Your task to perform on an android device: Do I have any events this weekend? Image 0: 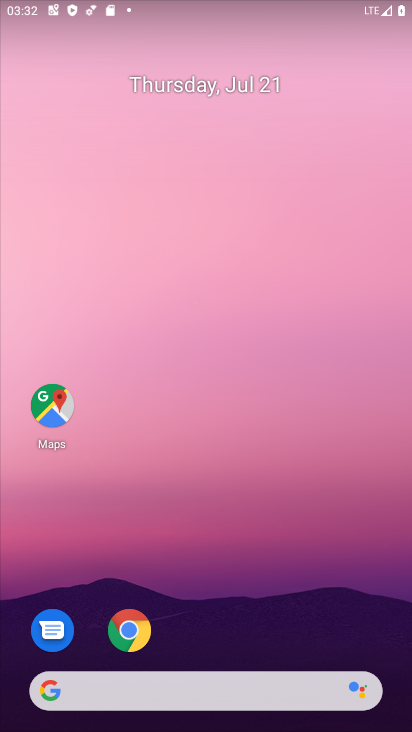
Step 0: click (215, 87)
Your task to perform on an android device: Do I have any events this weekend? Image 1: 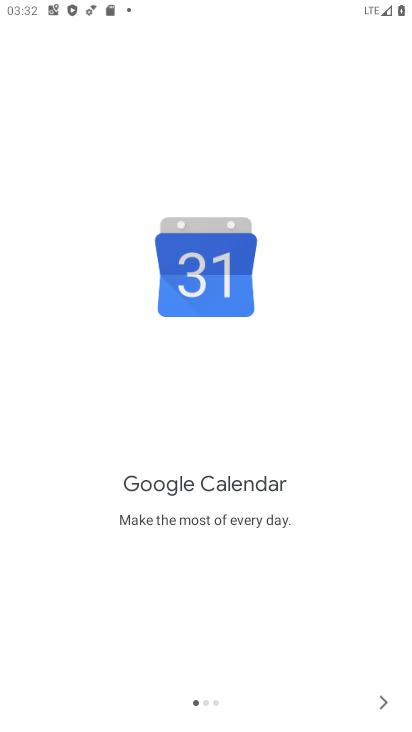
Step 1: click (376, 682)
Your task to perform on an android device: Do I have any events this weekend? Image 2: 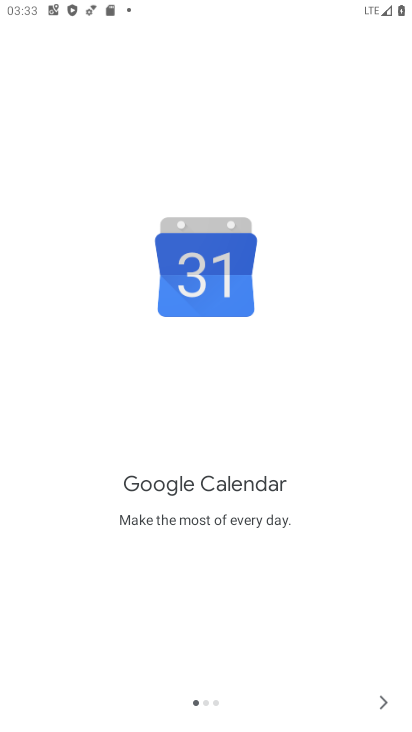
Step 2: click (387, 698)
Your task to perform on an android device: Do I have any events this weekend? Image 3: 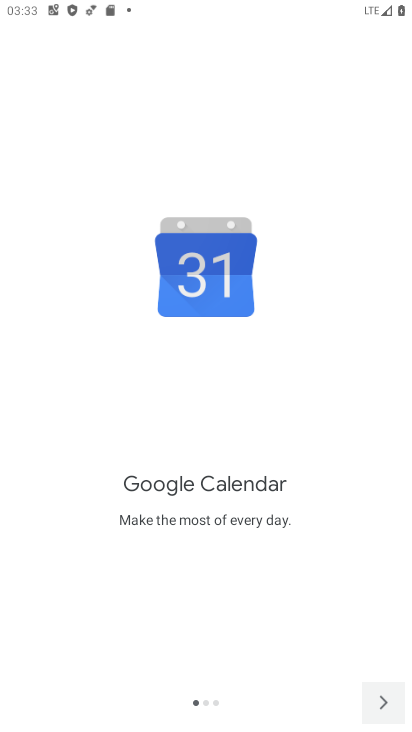
Step 3: click (387, 698)
Your task to perform on an android device: Do I have any events this weekend? Image 4: 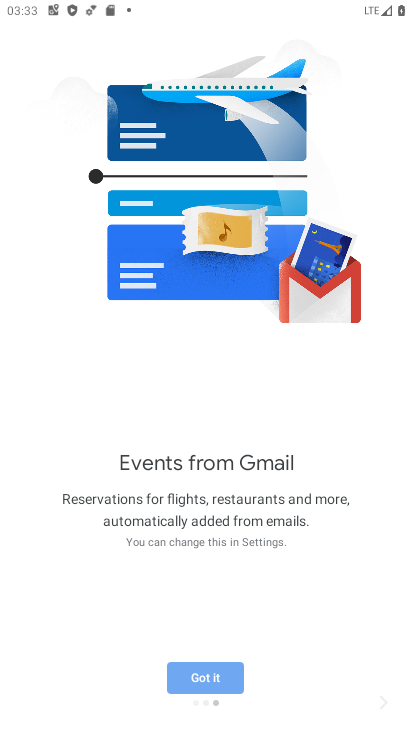
Step 4: click (387, 698)
Your task to perform on an android device: Do I have any events this weekend? Image 5: 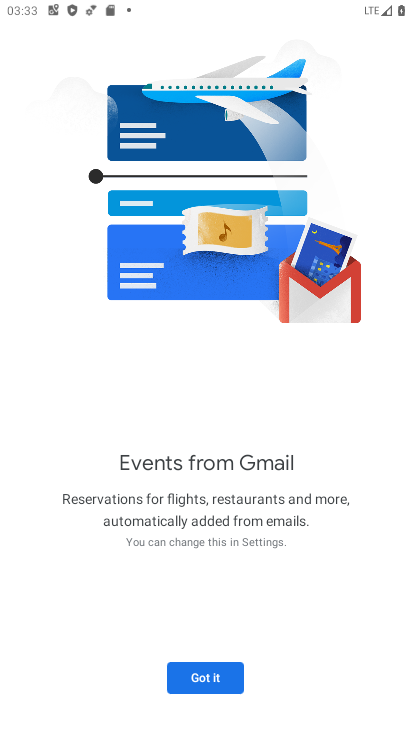
Step 5: click (209, 669)
Your task to perform on an android device: Do I have any events this weekend? Image 6: 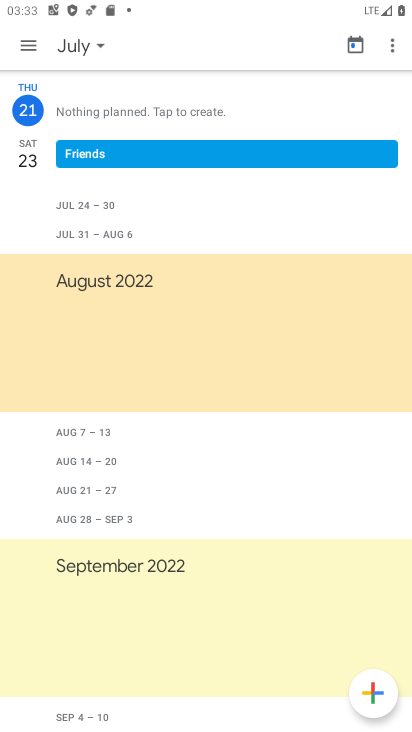
Step 6: click (87, 48)
Your task to perform on an android device: Do I have any events this weekend? Image 7: 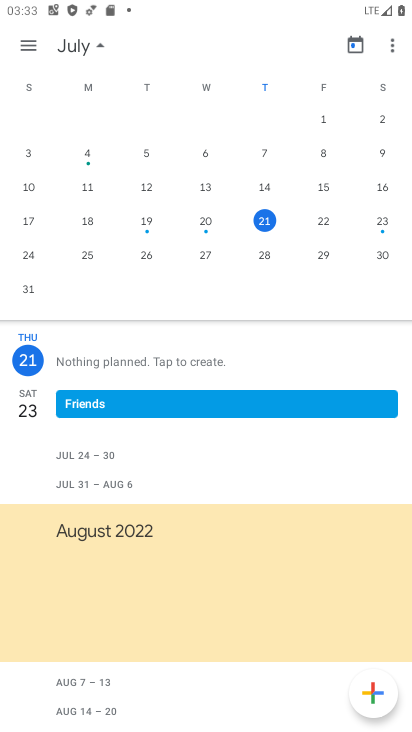
Step 7: click (388, 218)
Your task to perform on an android device: Do I have any events this weekend? Image 8: 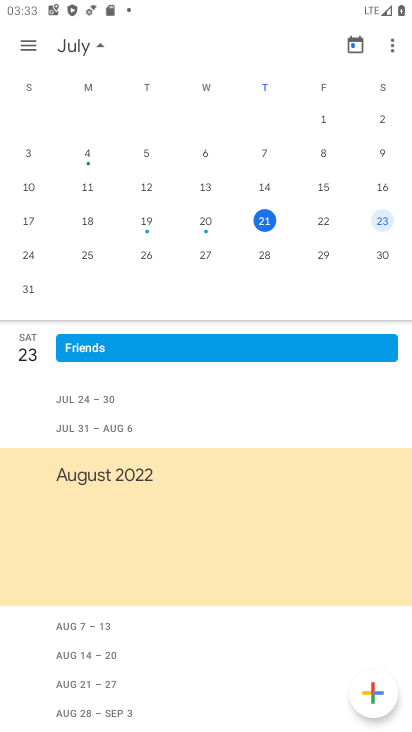
Step 8: task complete